Your task to perform on an android device: delete a single message in the gmail app Image 0: 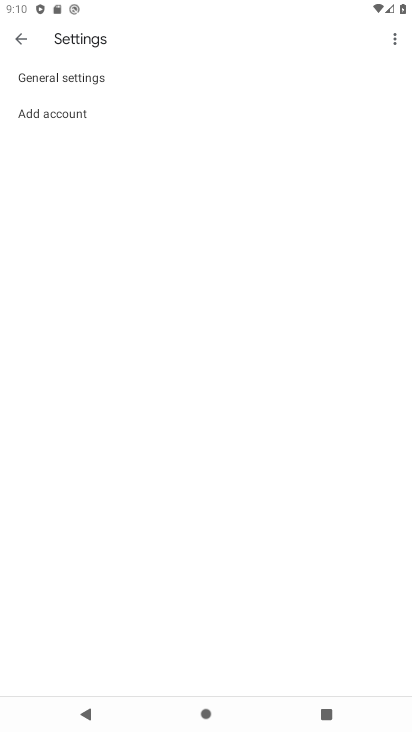
Step 0: drag from (210, 654) to (332, 149)
Your task to perform on an android device: delete a single message in the gmail app Image 1: 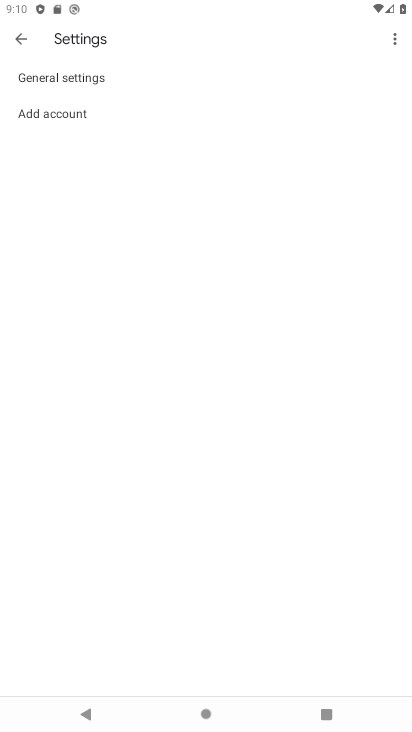
Step 1: press back button
Your task to perform on an android device: delete a single message in the gmail app Image 2: 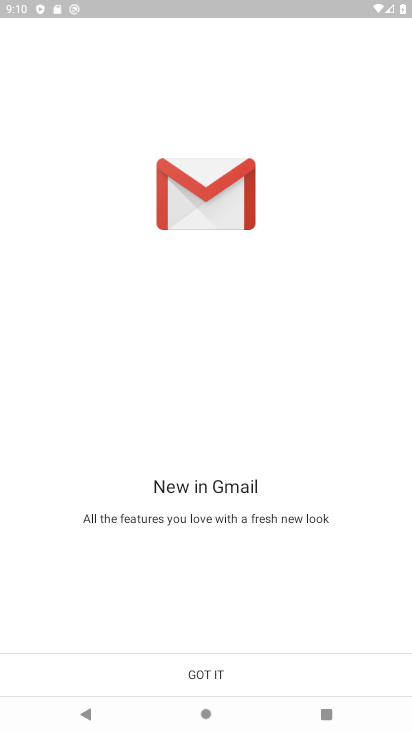
Step 2: click (236, 665)
Your task to perform on an android device: delete a single message in the gmail app Image 3: 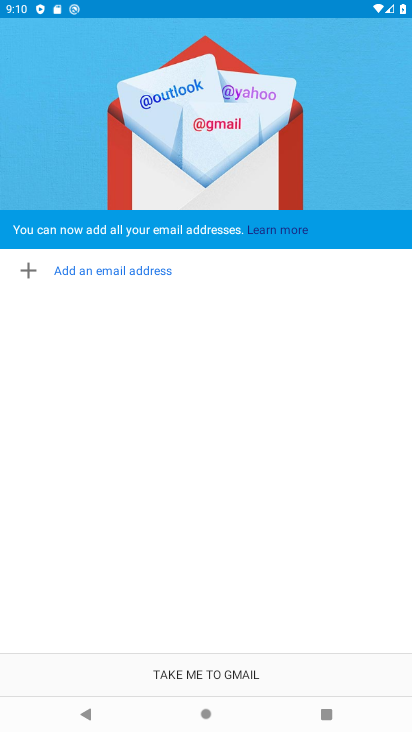
Step 3: task complete